Your task to perform on an android device: Open Yahoo.com Image 0: 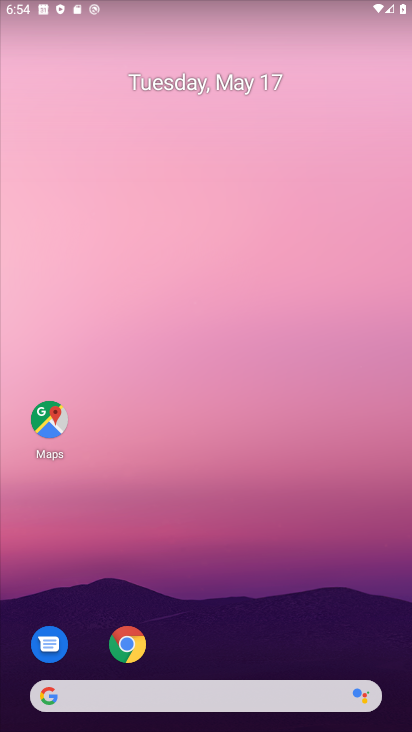
Step 0: drag from (332, 616) to (263, 240)
Your task to perform on an android device: Open Yahoo.com Image 1: 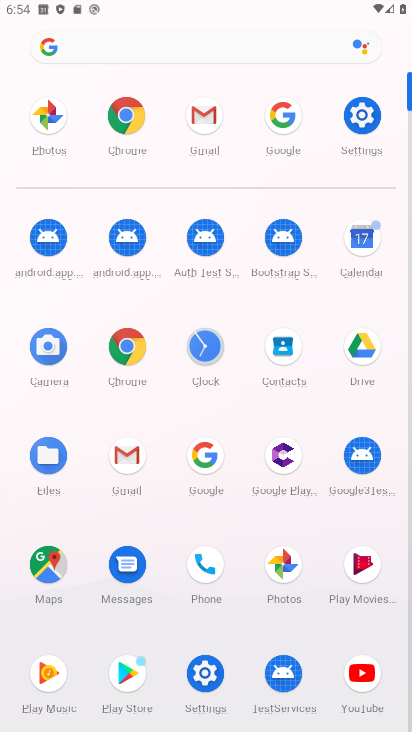
Step 1: click (206, 452)
Your task to perform on an android device: Open Yahoo.com Image 2: 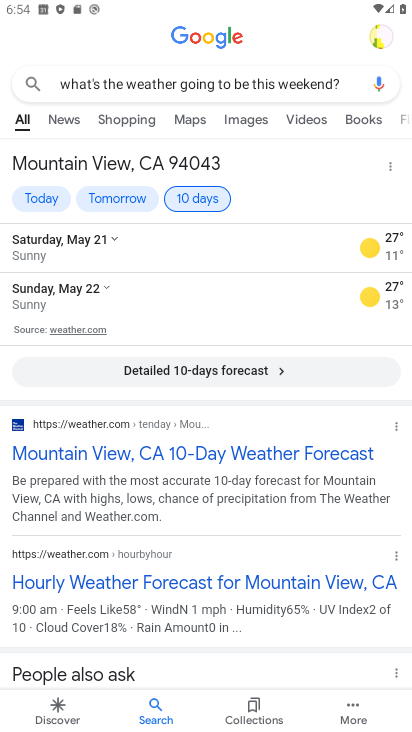
Step 2: press back button
Your task to perform on an android device: Open Yahoo.com Image 3: 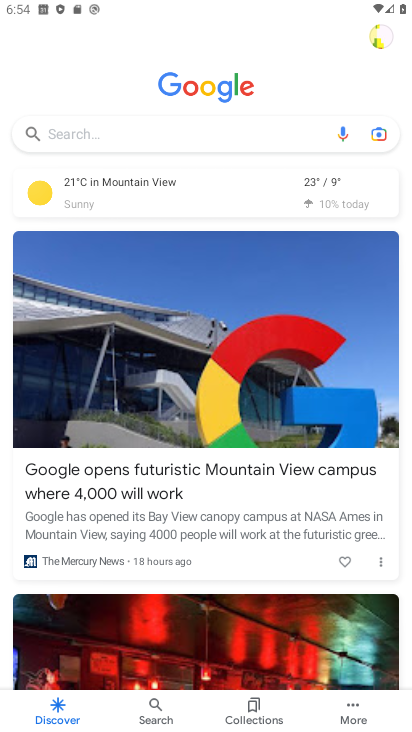
Step 3: click (187, 126)
Your task to perform on an android device: Open Yahoo.com Image 4: 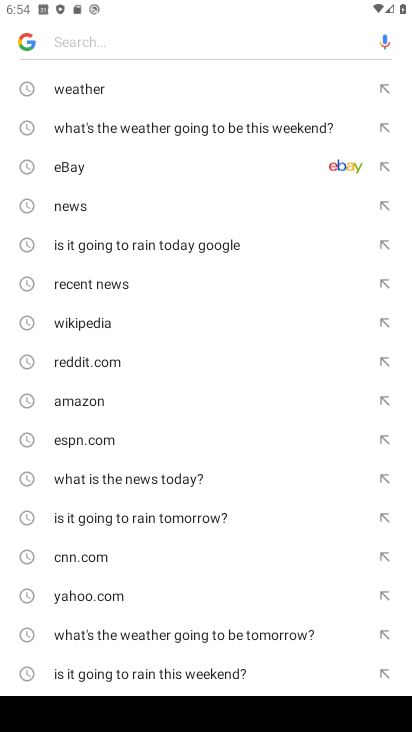
Step 4: click (121, 600)
Your task to perform on an android device: Open Yahoo.com Image 5: 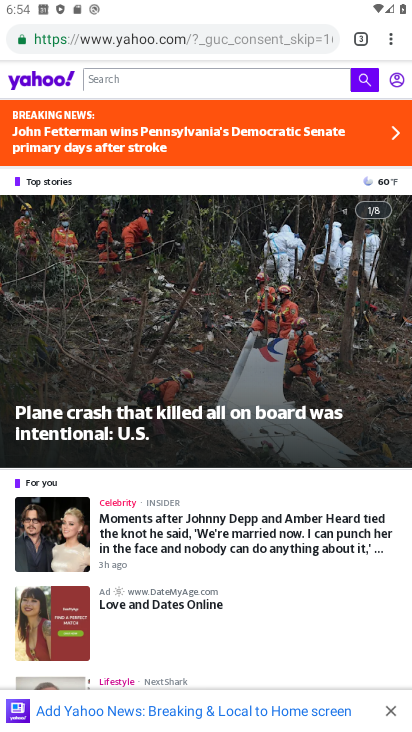
Step 5: task complete